Your task to perform on an android device: turn off translation in the chrome app Image 0: 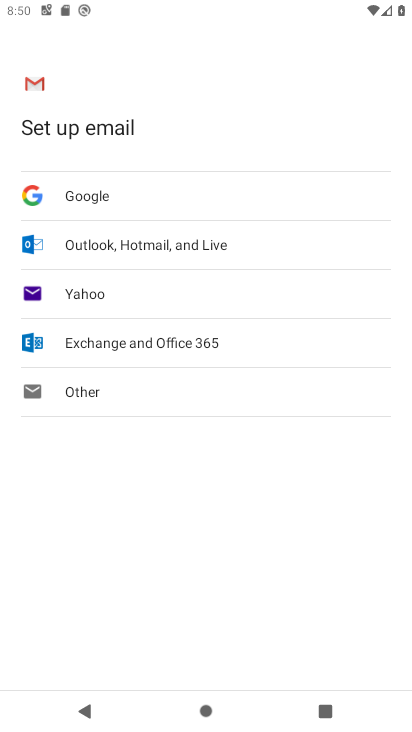
Step 0: press home button
Your task to perform on an android device: turn off translation in the chrome app Image 1: 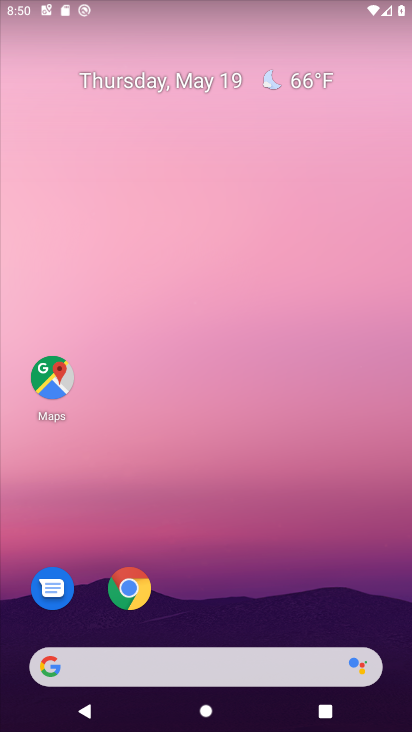
Step 1: drag from (357, 578) to (348, 173)
Your task to perform on an android device: turn off translation in the chrome app Image 2: 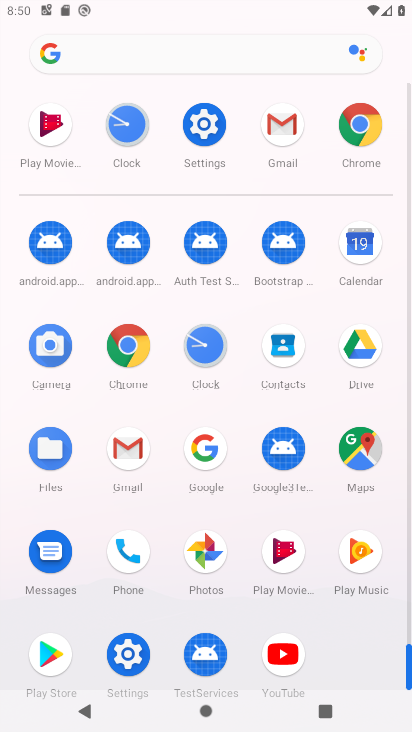
Step 2: click (140, 359)
Your task to perform on an android device: turn off translation in the chrome app Image 3: 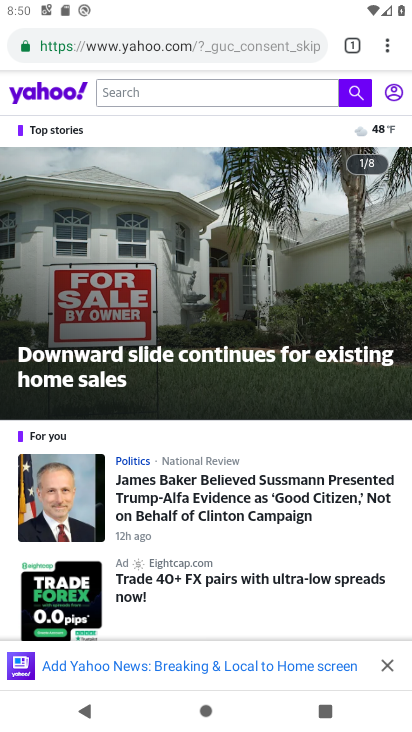
Step 3: click (387, 46)
Your task to perform on an android device: turn off translation in the chrome app Image 4: 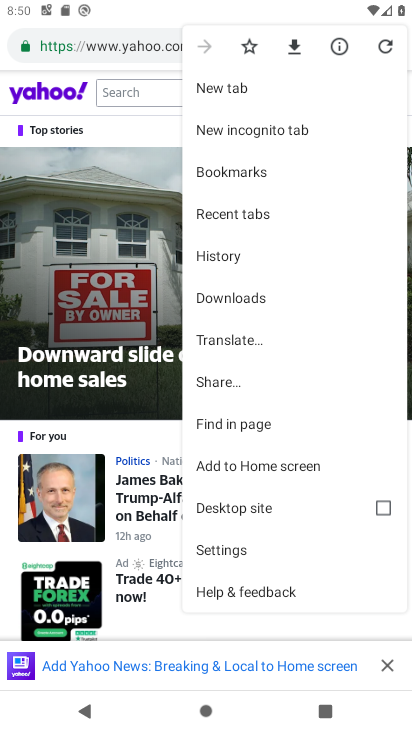
Step 4: click (213, 555)
Your task to perform on an android device: turn off translation in the chrome app Image 5: 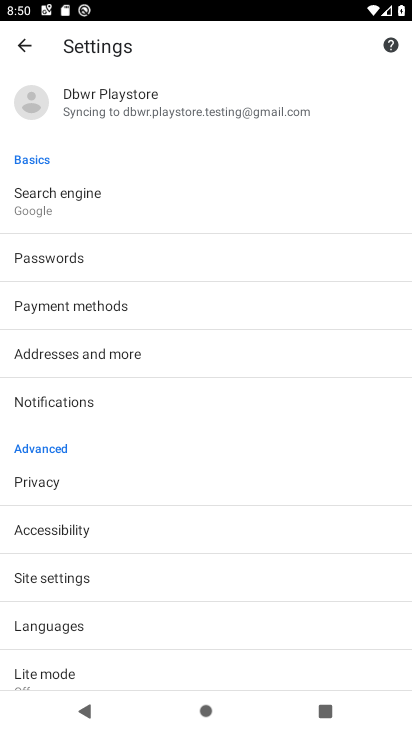
Step 5: drag from (240, 578) to (262, 480)
Your task to perform on an android device: turn off translation in the chrome app Image 6: 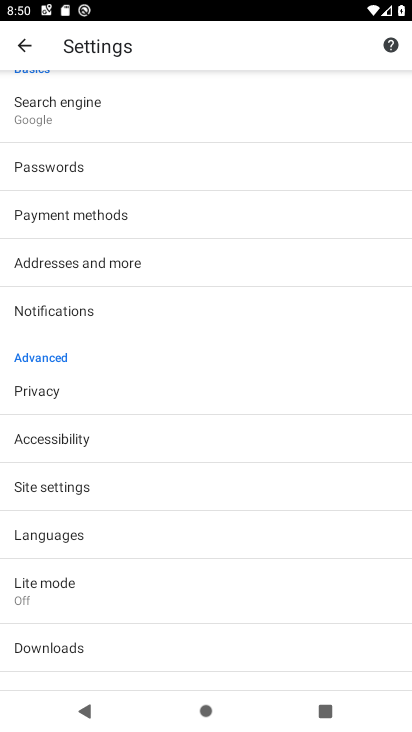
Step 6: drag from (288, 581) to (284, 383)
Your task to perform on an android device: turn off translation in the chrome app Image 7: 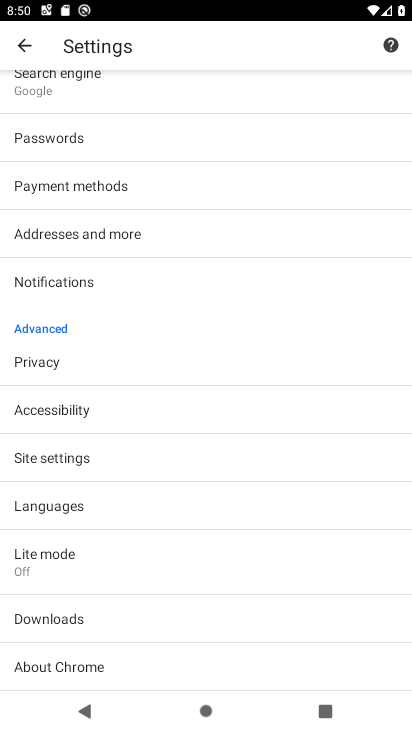
Step 7: drag from (234, 611) to (236, 399)
Your task to perform on an android device: turn off translation in the chrome app Image 8: 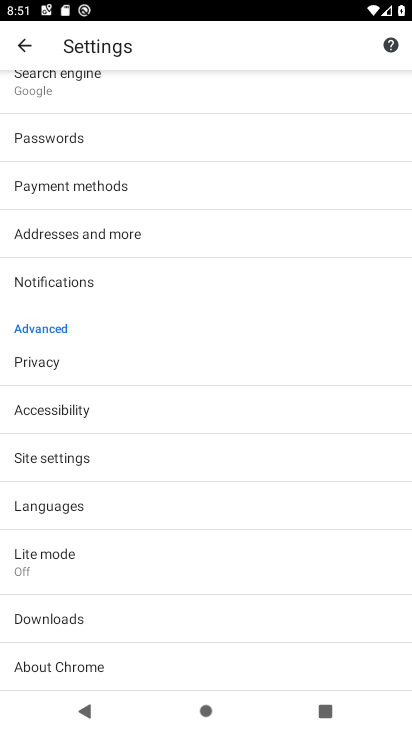
Step 8: click (210, 559)
Your task to perform on an android device: turn off translation in the chrome app Image 9: 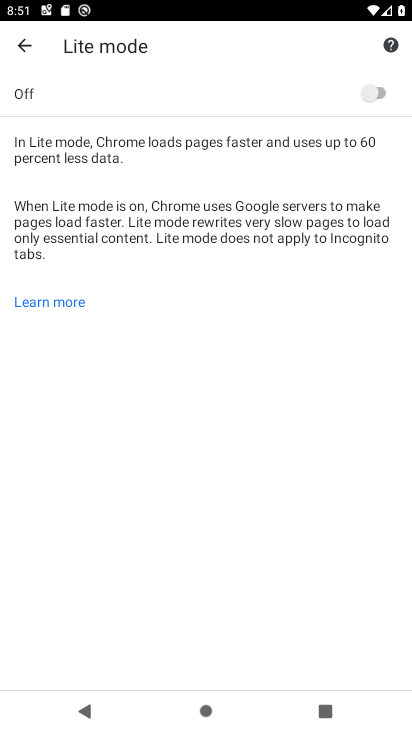
Step 9: task complete